Your task to perform on an android device: Open Google Maps and go to "Timeline" Image 0: 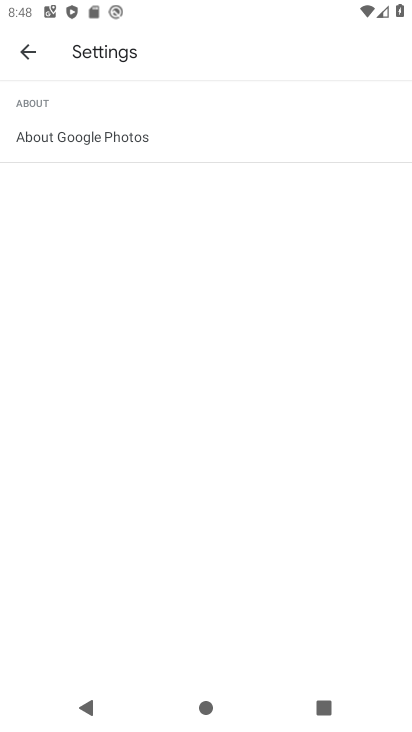
Step 0: press home button
Your task to perform on an android device: Open Google Maps and go to "Timeline" Image 1: 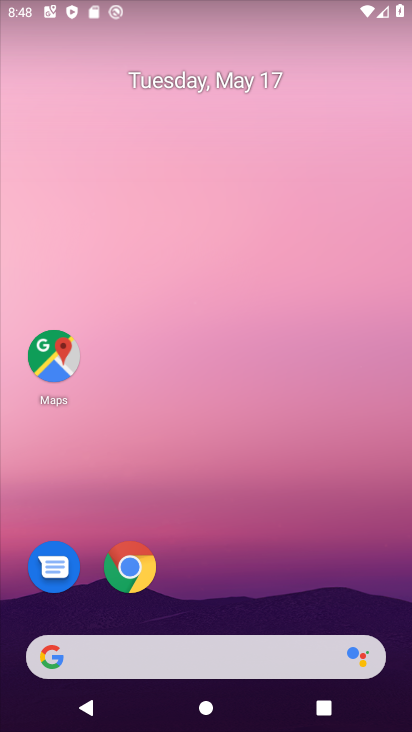
Step 1: click (50, 359)
Your task to perform on an android device: Open Google Maps and go to "Timeline" Image 2: 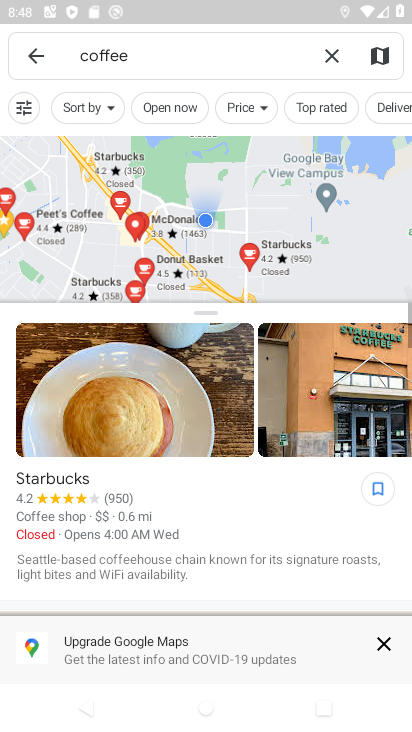
Step 2: click (30, 52)
Your task to perform on an android device: Open Google Maps and go to "Timeline" Image 3: 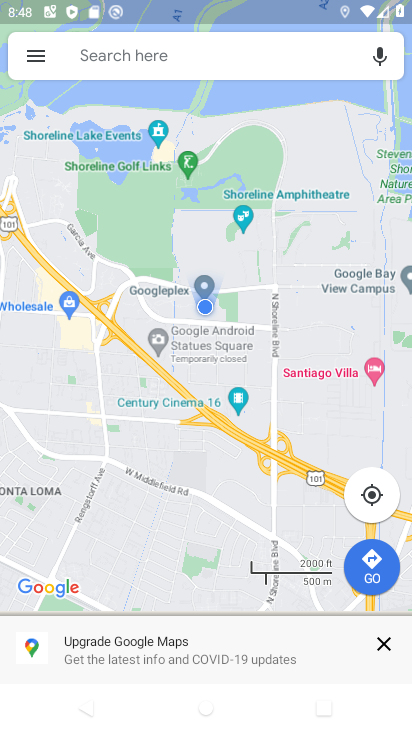
Step 3: click (30, 56)
Your task to perform on an android device: Open Google Maps and go to "Timeline" Image 4: 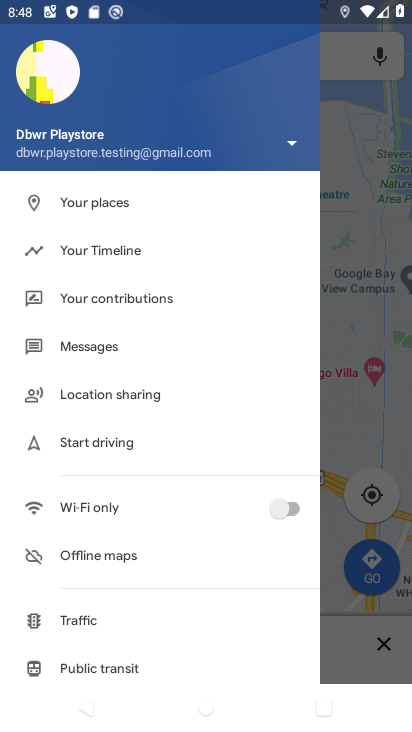
Step 4: click (107, 252)
Your task to perform on an android device: Open Google Maps and go to "Timeline" Image 5: 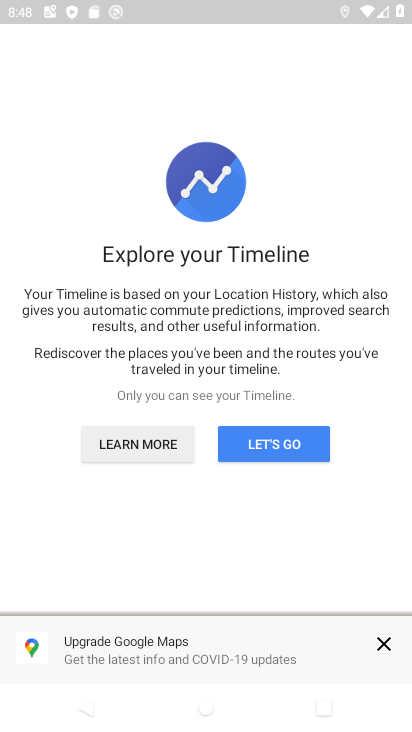
Step 5: click (250, 442)
Your task to perform on an android device: Open Google Maps and go to "Timeline" Image 6: 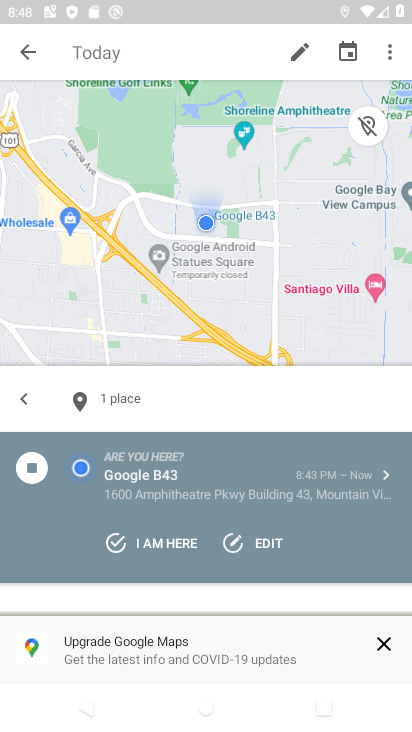
Step 6: task complete